Your task to perform on an android device: Open settings Image 0: 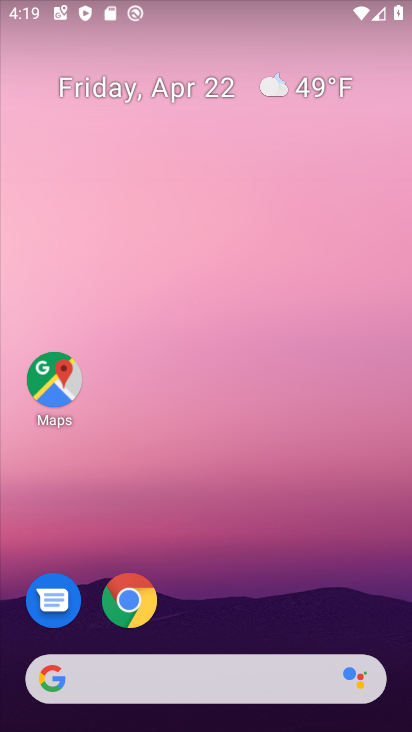
Step 0: drag from (231, 585) to (206, 23)
Your task to perform on an android device: Open settings Image 1: 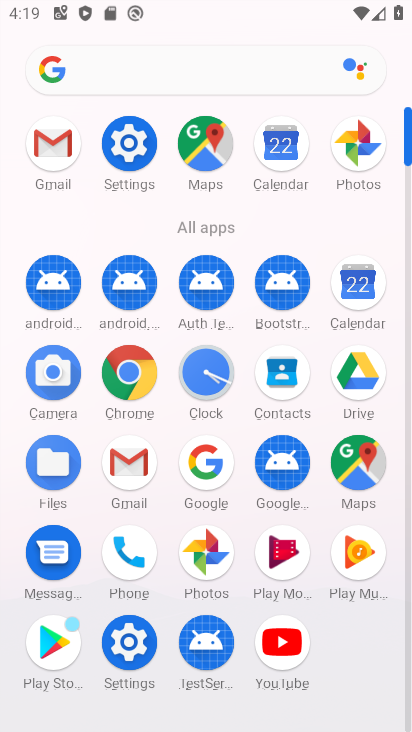
Step 1: click (130, 147)
Your task to perform on an android device: Open settings Image 2: 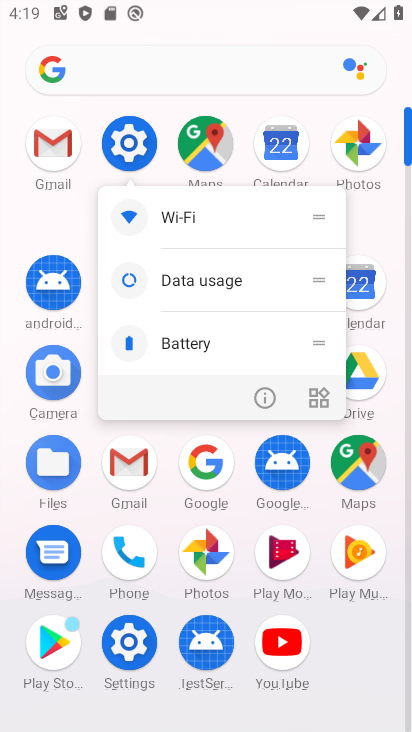
Step 2: click (130, 147)
Your task to perform on an android device: Open settings Image 3: 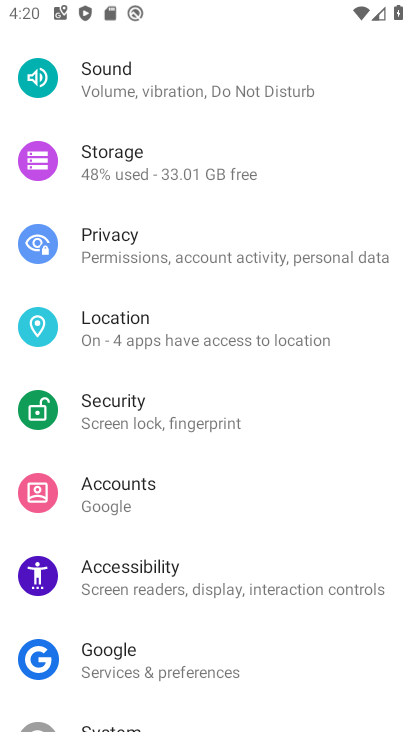
Step 3: task complete